Your task to perform on an android device: Go to display settings Image 0: 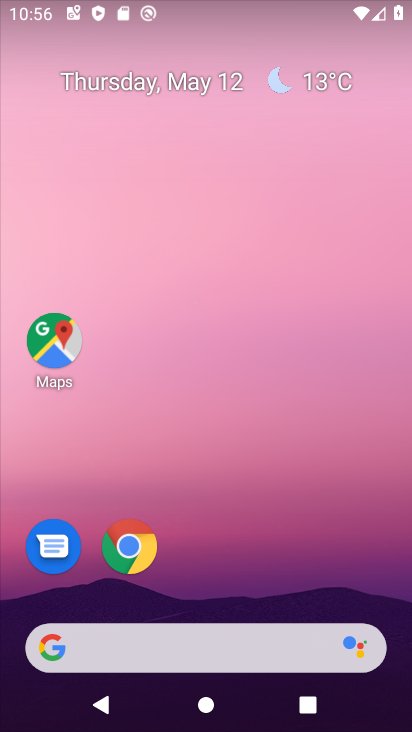
Step 0: drag from (256, 685) to (170, 158)
Your task to perform on an android device: Go to display settings Image 1: 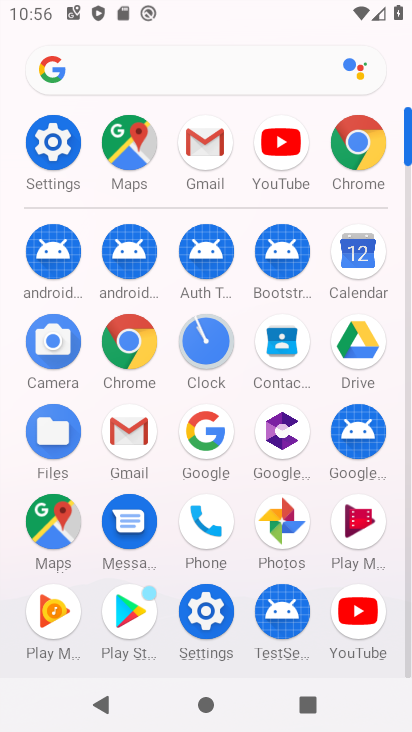
Step 1: click (220, 601)
Your task to perform on an android device: Go to display settings Image 2: 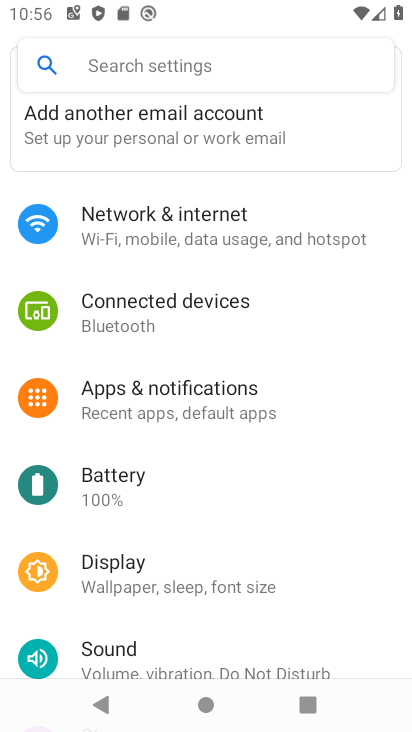
Step 2: click (161, 595)
Your task to perform on an android device: Go to display settings Image 3: 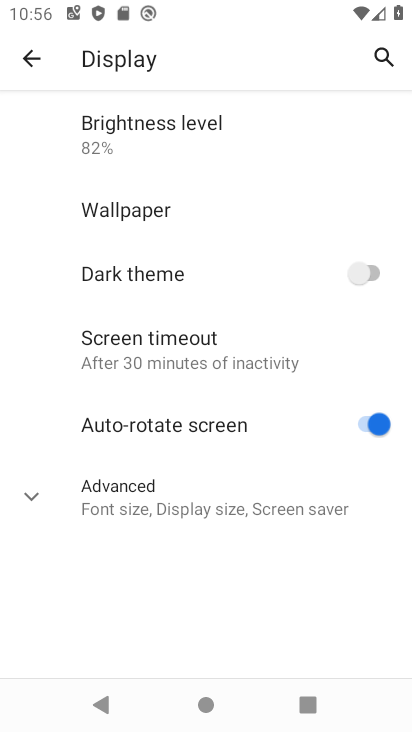
Step 3: click (49, 497)
Your task to perform on an android device: Go to display settings Image 4: 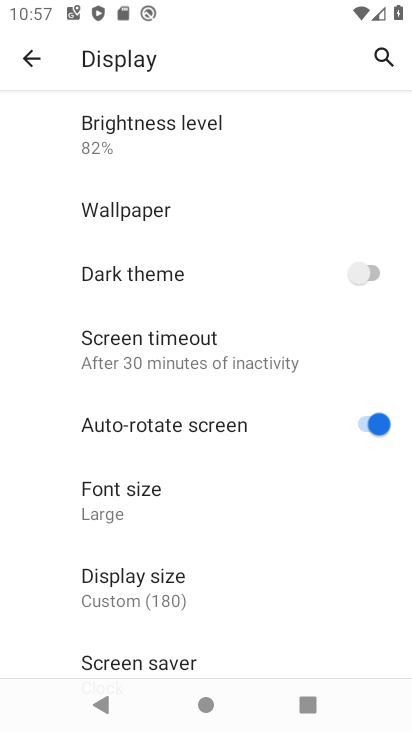
Step 4: task complete